Your task to perform on an android device: Open my contact list Image 0: 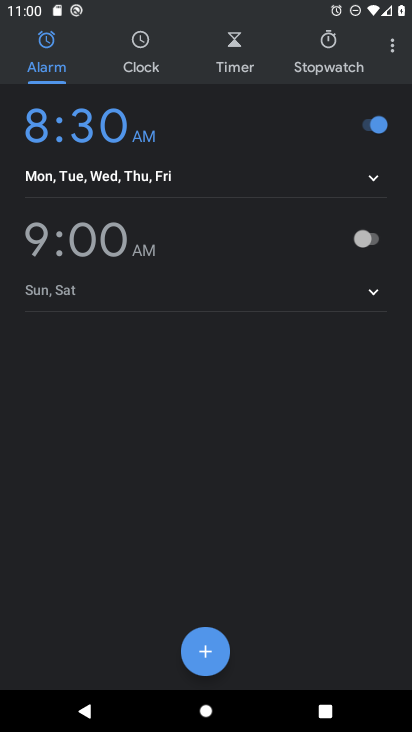
Step 0: press back button
Your task to perform on an android device: Open my contact list Image 1: 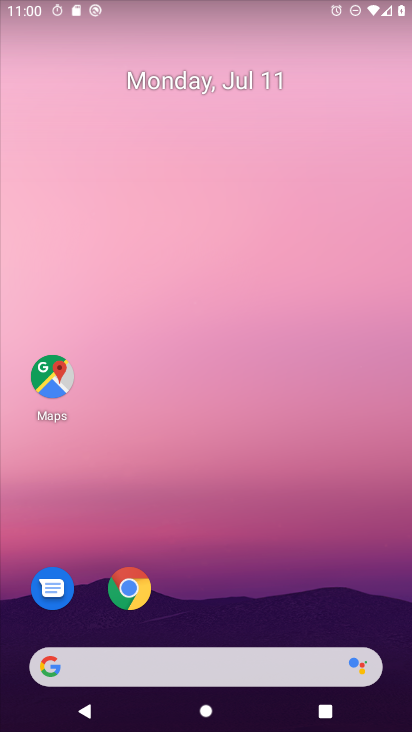
Step 1: drag from (201, 618) to (271, 29)
Your task to perform on an android device: Open my contact list Image 2: 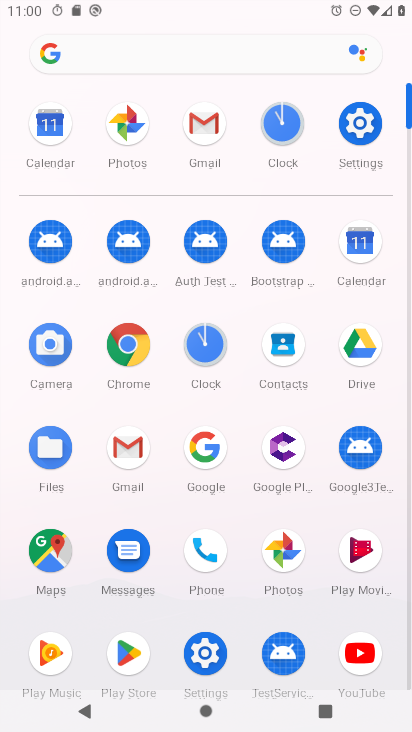
Step 2: click (287, 362)
Your task to perform on an android device: Open my contact list Image 3: 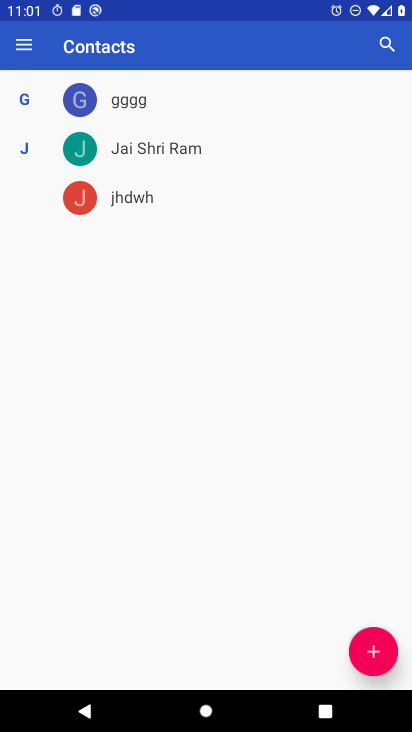
Step 3: task complete